Your task to perform on an android device: check android version Image 0: 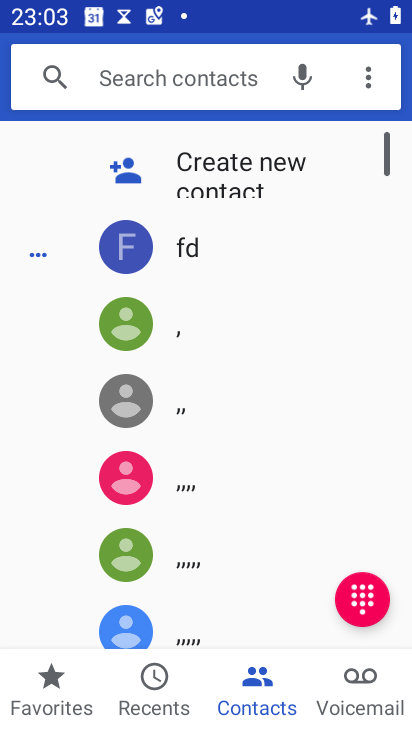
Step 0: press home button
Your task to perform on an android device: check android version Image 1: 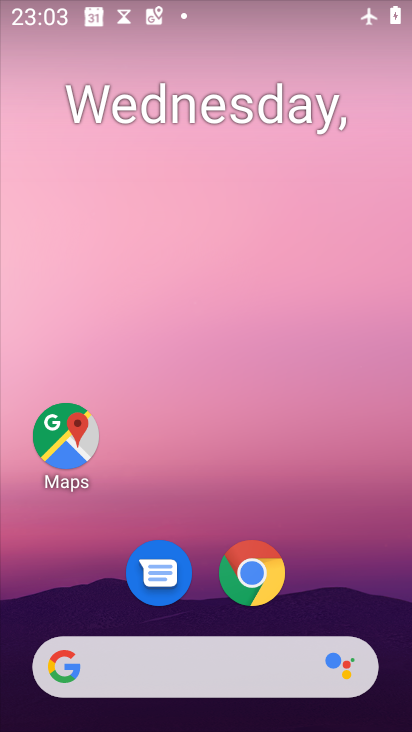
Step 1: drag from (320, 585) to (299, 230)
Your task to perform on an android device: check android version Image 2: 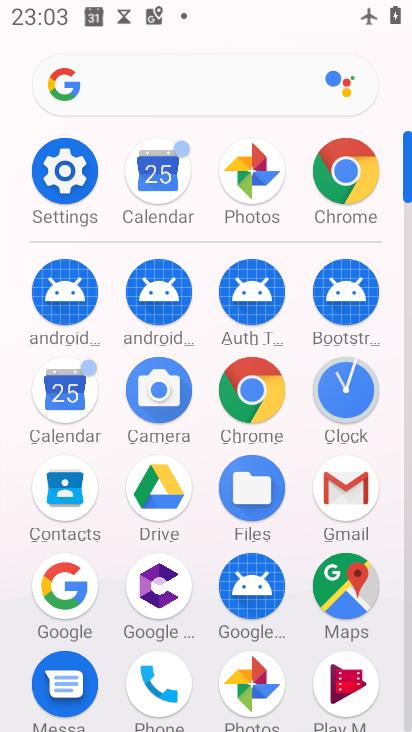
Step 2: click (65, 169)
Your task to perform on an android device: check android version Image 3: 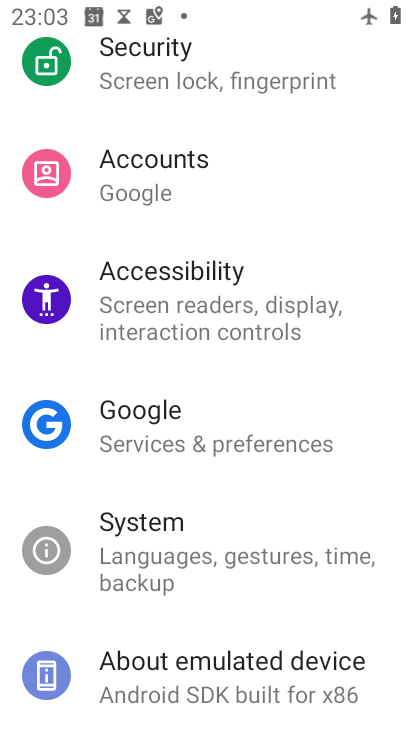
Step 3: click (258, 671)
Your task to perform on an android device: check android version Image 4: 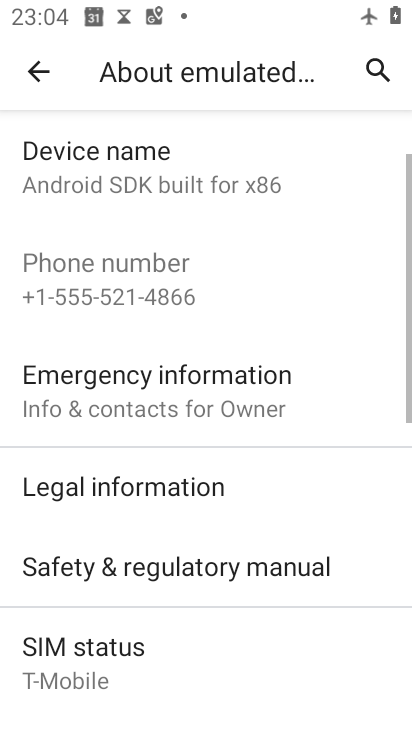
Step 4: task complete